Your task to perform on an android device: Go to settings Image 0: 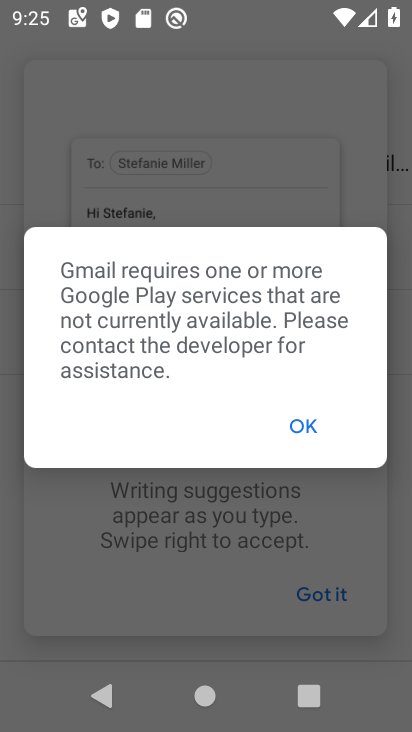
Step 0: click (312, 412)
Your task to perform on an android device: Go to settings Image 1: 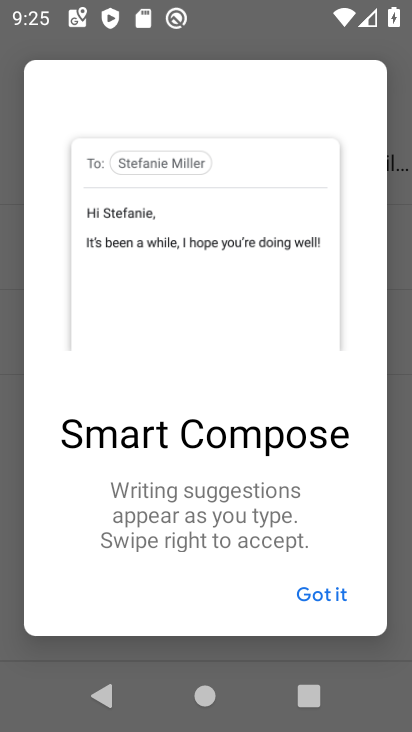
Step 1: press home button
Your task to perform on an android device: Go to settings Image 2: 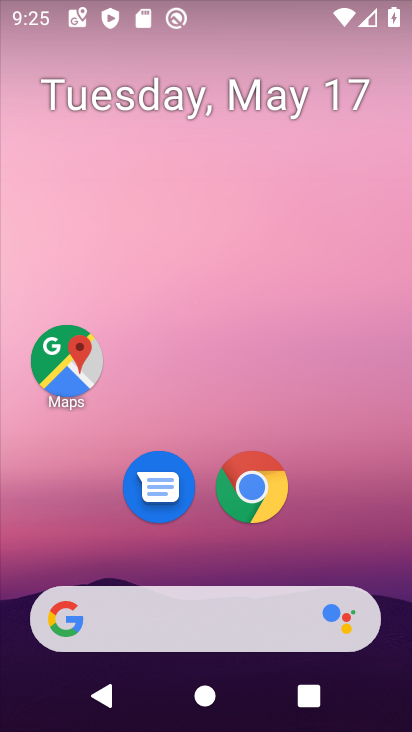
Step 2: drag from (290, 651) to (135, 278)
Your task to perform on an android device: Go to settings Image 3: 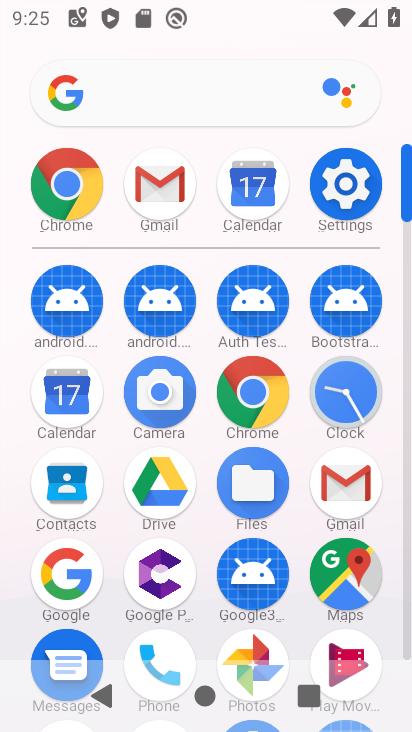
Step 3: click (341, 203)
Your task to perform on an android device: Go to settings Image 4: 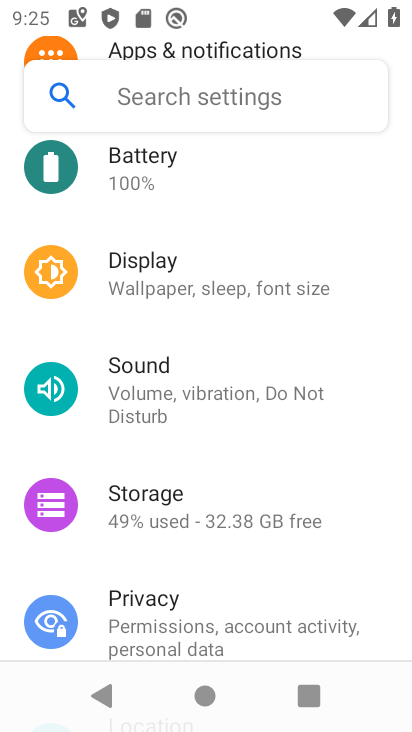
Step 4: task complete